Your task to perform on an android device: open chrome privacy settings Image 0: 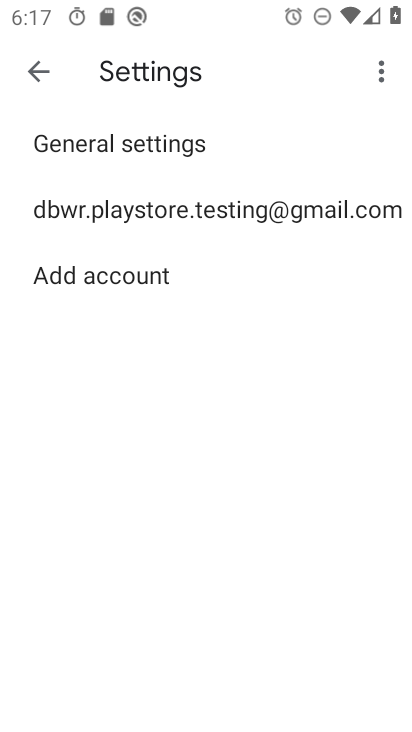
Step 0: press back button
Your task to perform on an android device: open chrome privacy settings Image 1: 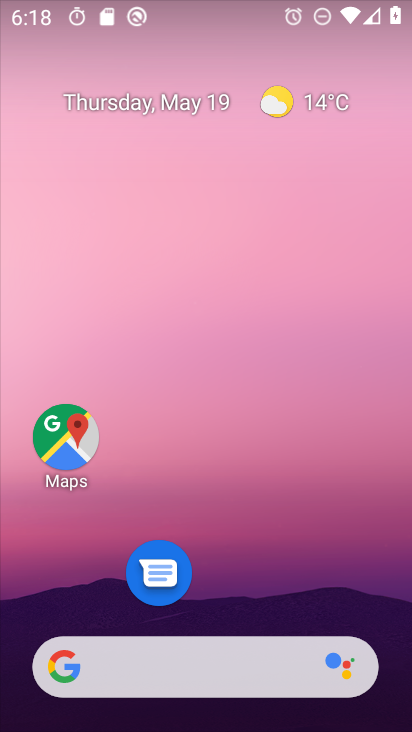
Step 1: drag from (227, 599) to (161, 83)
Your task to perform on an android device: open chrome privacy settings Image 2: 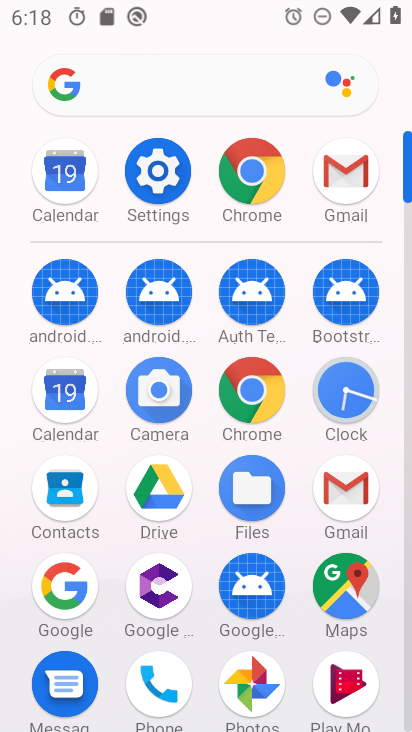
Step 2: click (248, 202)
Your task to perform on an android device: open chrome privacy settings Image 3: 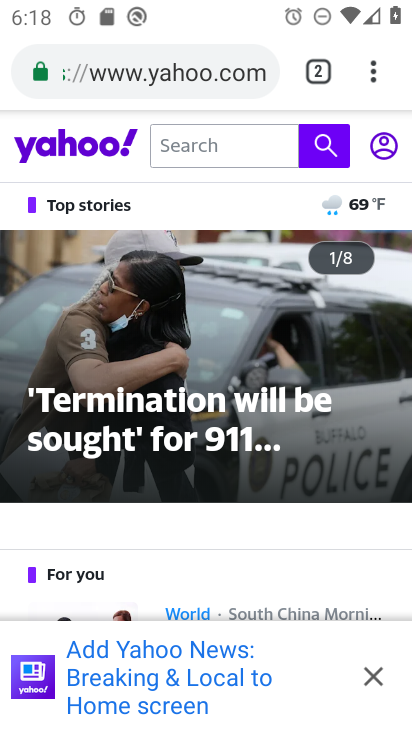
Step 3: click (373, 73)
Your task to perform on an android device: open chrome privacy settings Image 4: 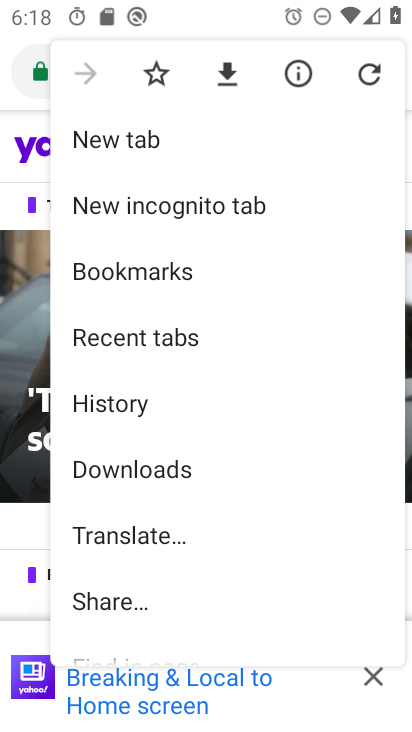
Step 4: drag from (154, 532) to (157, 167)
Your task to perform on an android device: open chrome privacy settings Image 5: 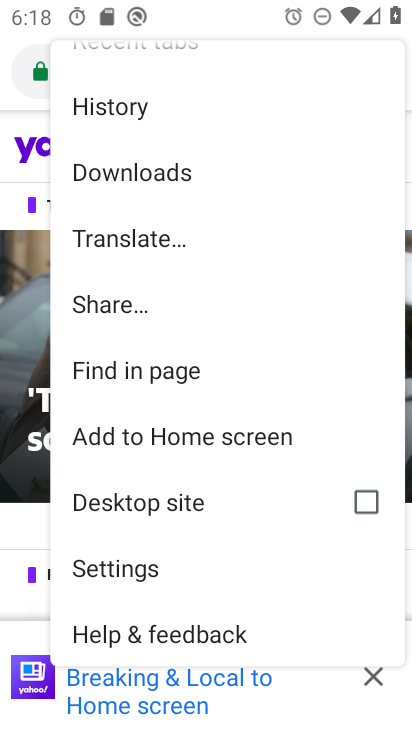
Step 5: click (116, 571)
Your task to perform on an android device: open chrome privacy settings Image 6: 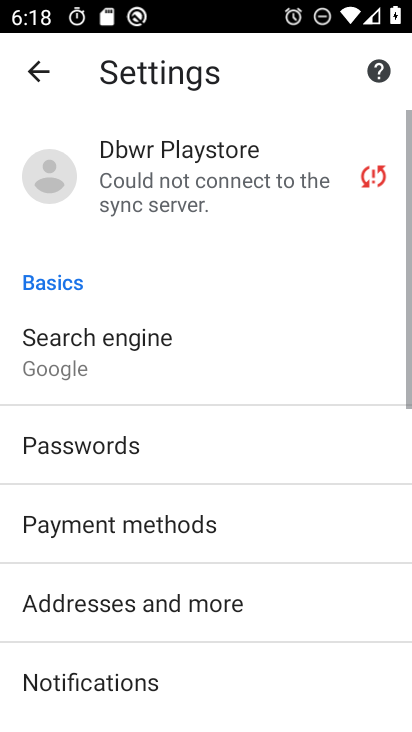
Step 6: drag from (152, 626) to (210, 199)
Your task to perform on an android device: open chrome privacy settings Image 7: 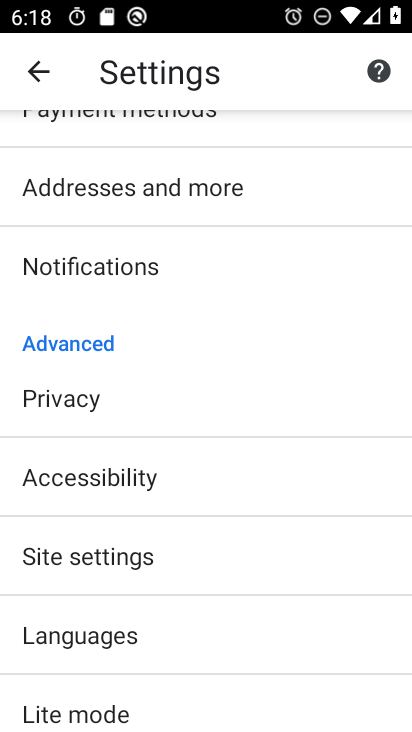
Step 7: drag from (132, 640) to (184, 226)
Your task to perform on an android device: open chrome privacy settings Image 8: 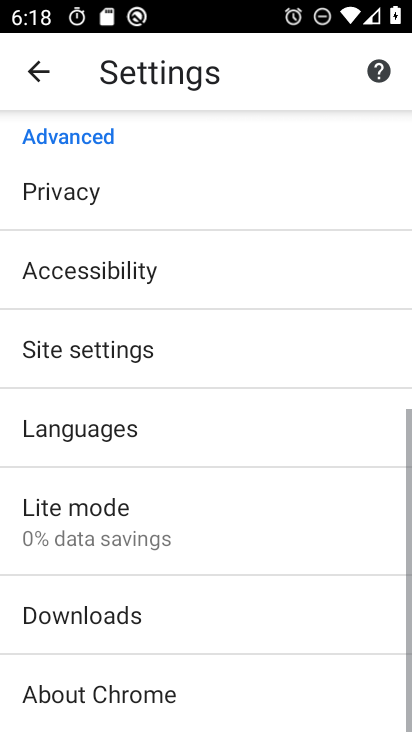
Step 8: drag from (96, 666) to (97, 257)
Your task to perform on an android device: open chrome privacy settings Image 9: 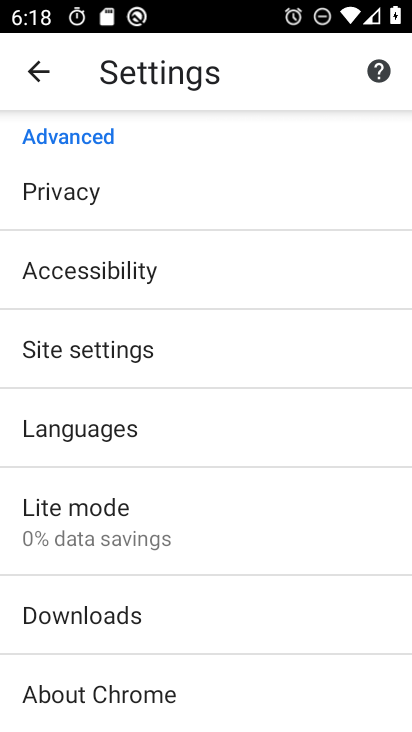
Step 9: drag from (128, 655) to (122, 229)
Your task to perform on an android device: open chrome privacy settings Image 10: 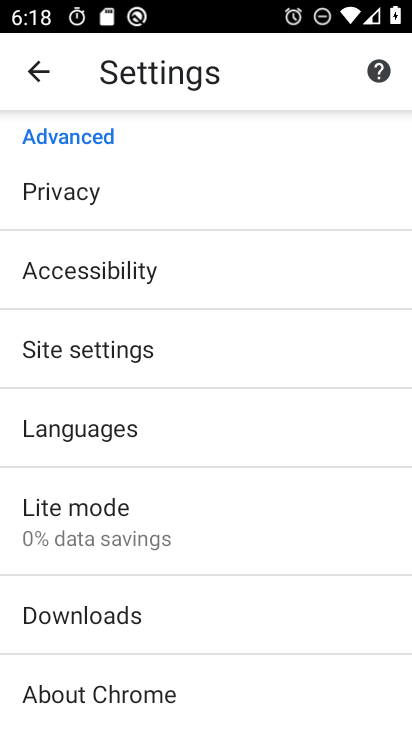
Step 10: click (83, 180)
Your task to perform on an android device: open chrome privacy settings Image 11: 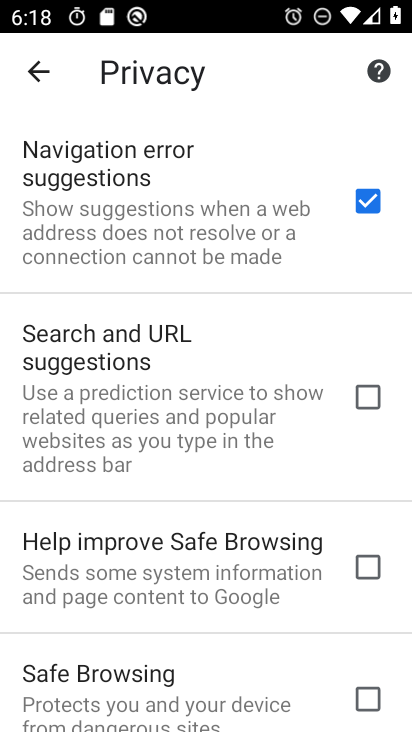
Step 11: task complete